Your task to perform on an android device: toggle location history Image 0: 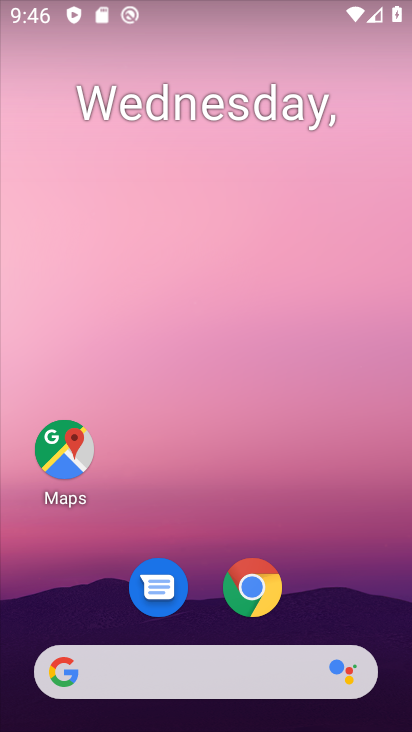
Step 0: drag from (361, 602) to (291, 267)
Your task to perform on an android device: toggle location history Image 1: 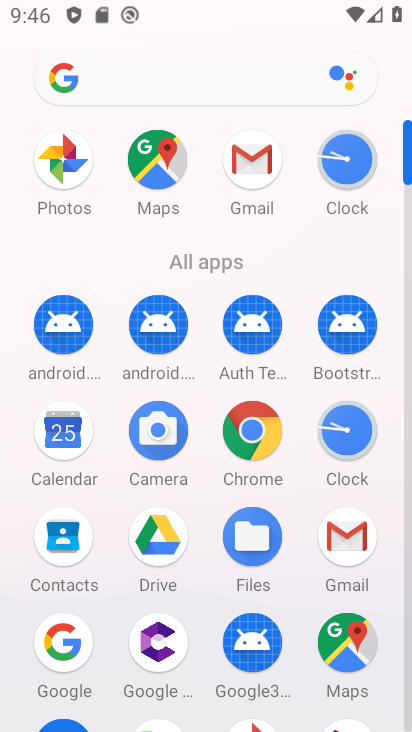
Step 1: drag from (108, 615) to (115, 146)
Your task to perform on an android device: toggle location history Image 2: 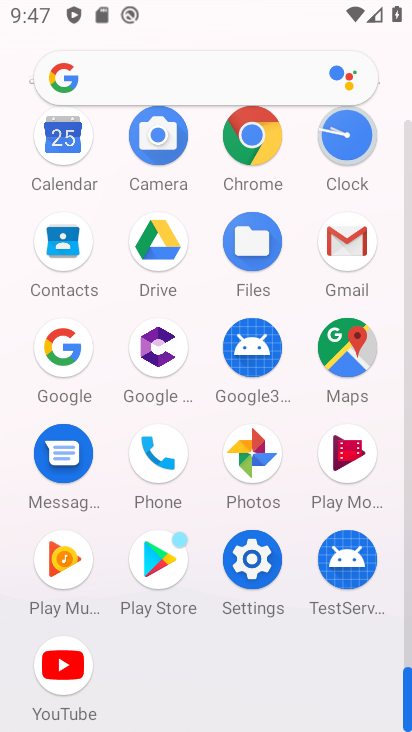
Step 2: click (253, 556)
Your task to perform on an android device: toggle location history Image 3: 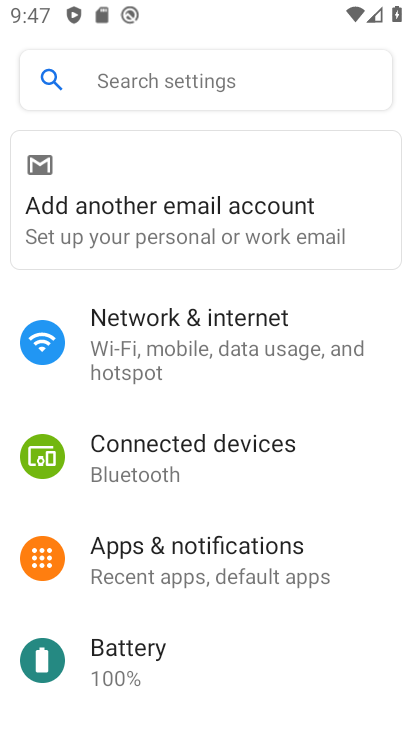
Step 3: drag from (321, 660) to (232, 208)
Your task to perform on an android device: toggle location history Image 4: 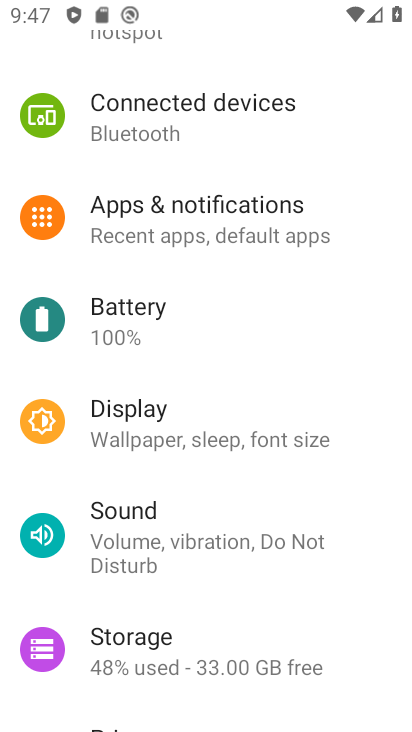
Step 4: drag from (375, 658) to (356, 409)
Your task to perform on an android device: toggle location history Image 5: 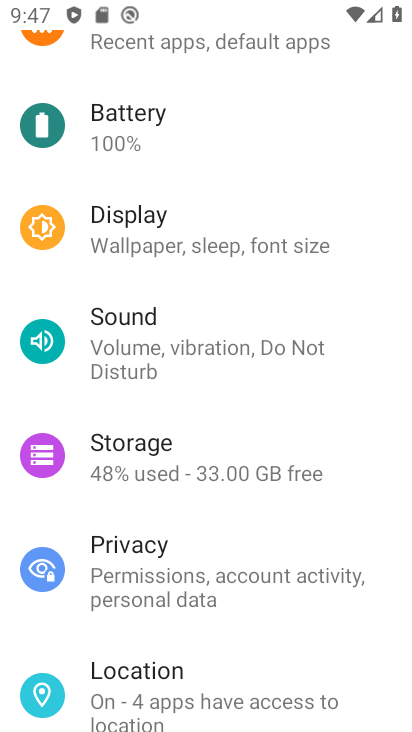
Step 5: click (219, 691)
Your task to perform on an android device: toggle location history Image 6: 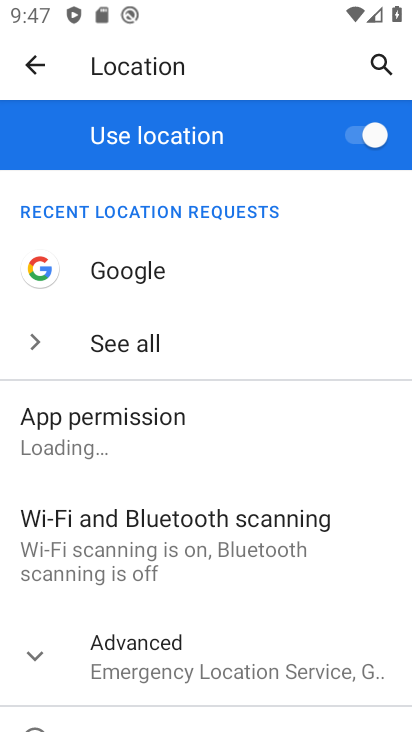
Step 6: drag from (334, 480) to (287, 222)
Your task to perform on an android device: toggle location history Image 7: 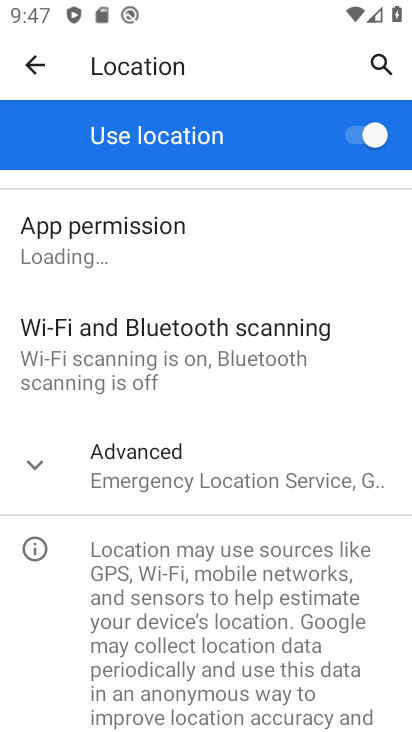
Step 7: click (37, 461)
Your task to perform on an android device: toggle location history Image 8: 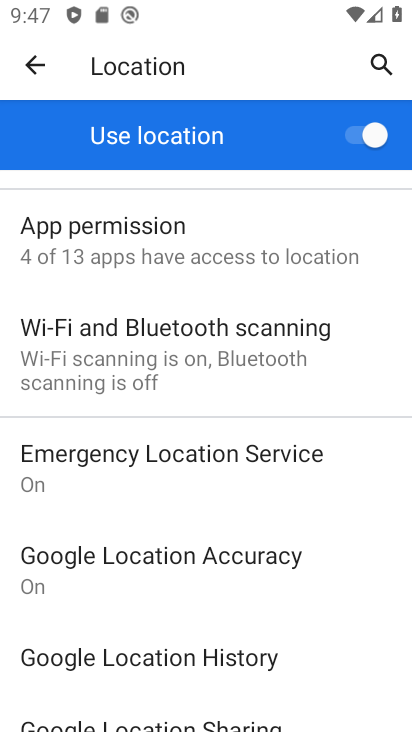
Step 8: click (147, 658)
Your task to perform on an android device: toggle location history Image 9: 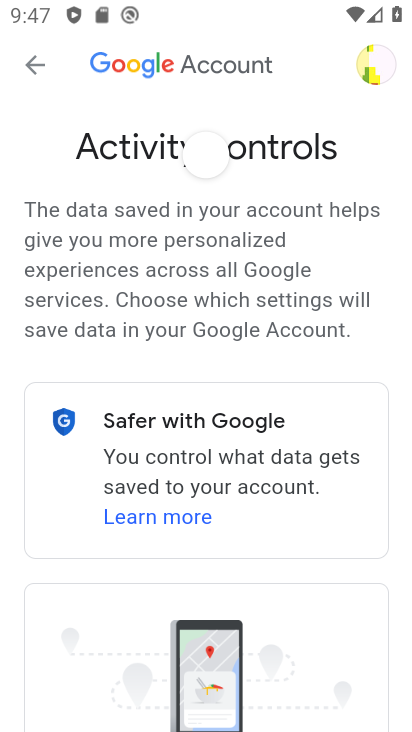
Step 9: drag from (372, 612) to (340, 162)
Your task to perform on an android device: toggle location history Image 10: 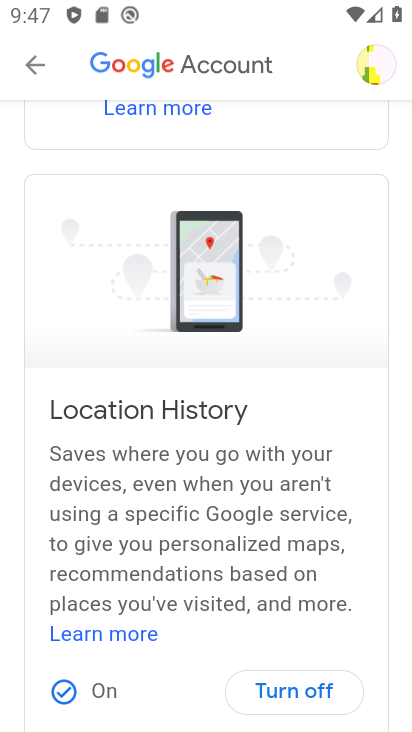
Step 10: click (283, 692)
Your task to perform on an android device: toggle location history Image 11: 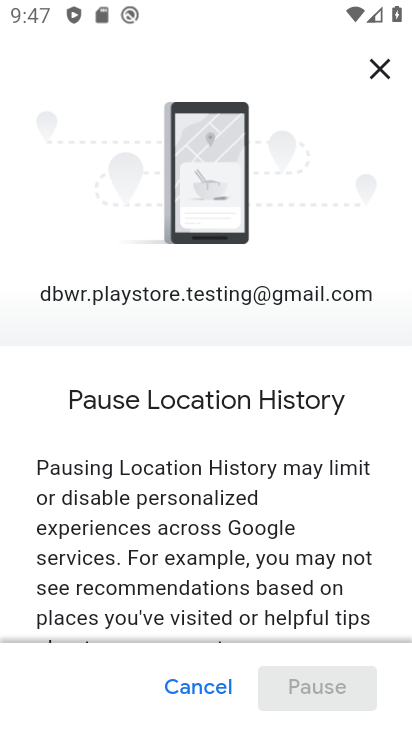
Step 11: drag from (349, 600) to (305, 39)
Your task to perform on an android device: toggle location history Image 12: 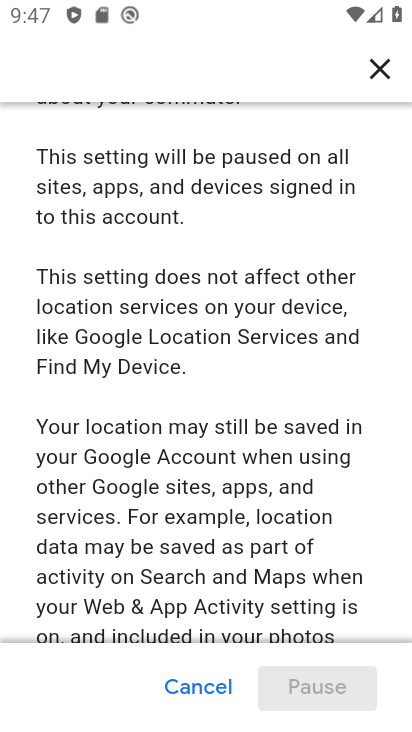
Step 12: drag from (327, 559) to (303, 174)
Your task to perform on an android device: toggle location history Image 13: 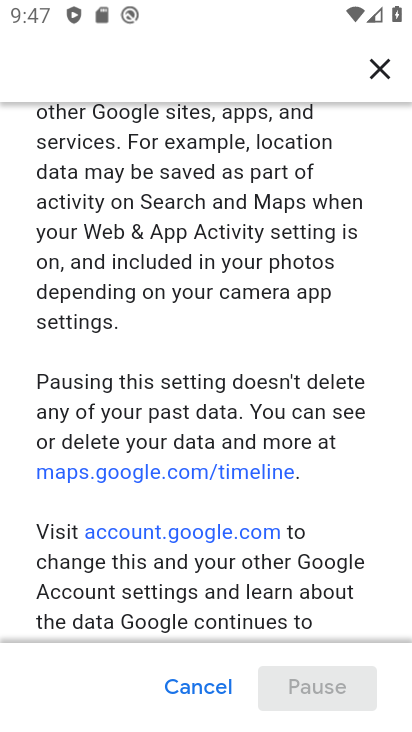
Step 13: drag from (352, 602) to (313, 199)
Your task to perform on an android device: toggle location history Image 14: 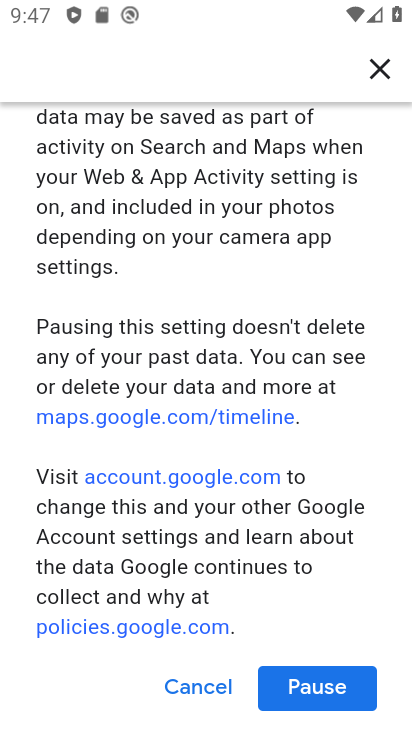
Step 14: click (324, 697)
Your task to perform on an android device: toggle location history Image 15: 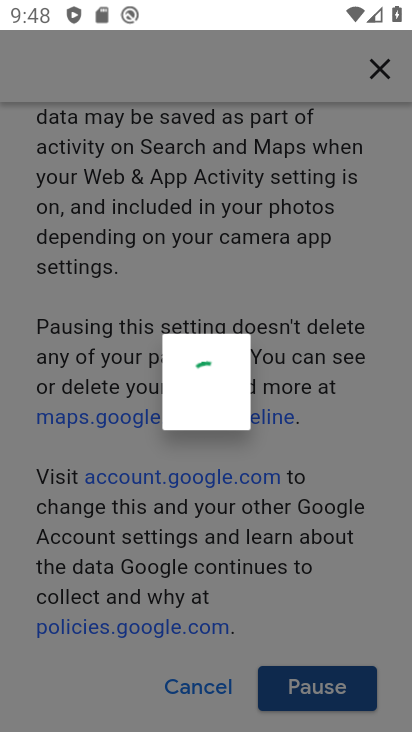
Step 15: click (343, 678)
Your task to perform on an android device: toggle location history Image 16: 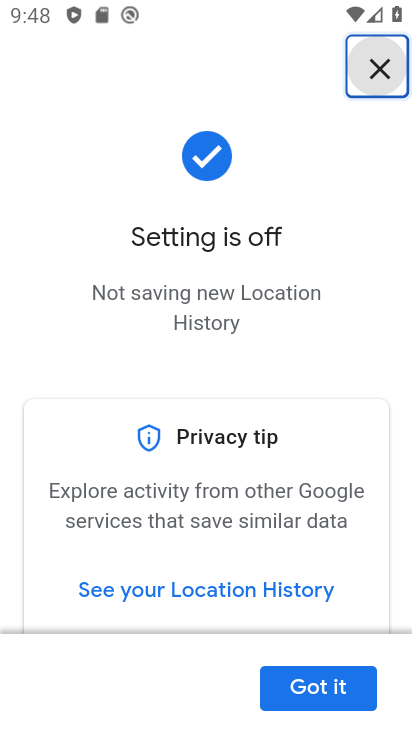
Step 16: click (321, 686)
Your task to perform on an android device: toggle location history Image 17: 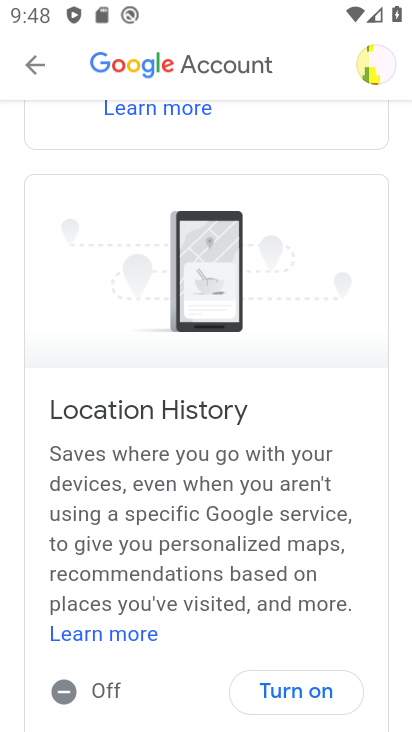
Step 17: task complete